Your task to perform on an android device: Set the phone to "Do not disturb". Image 0: 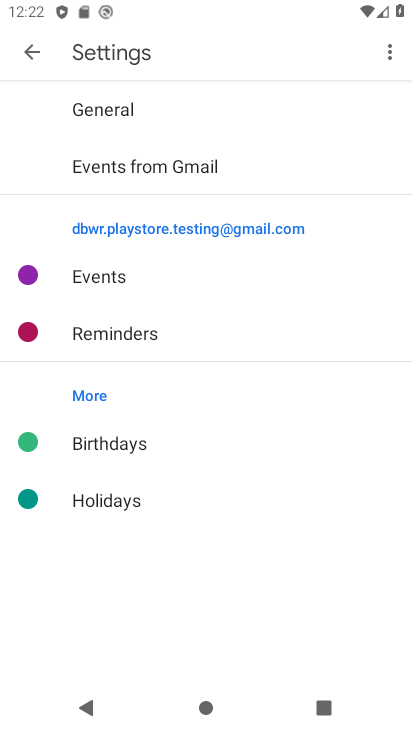
Step 0: press home button
Your task to perform on an android device: Set the phone to "Do not disturb". Image 1: 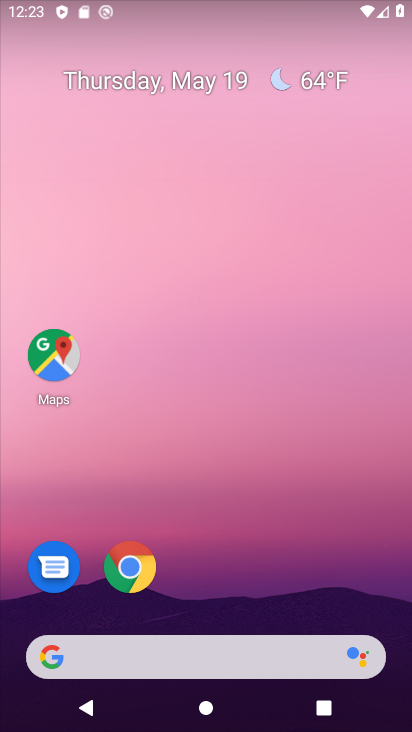
Step 1: drag from (293, 580) to (292, 84)
Your task to perform on an android device: Set the phone to "Do not disturb". Image 2: 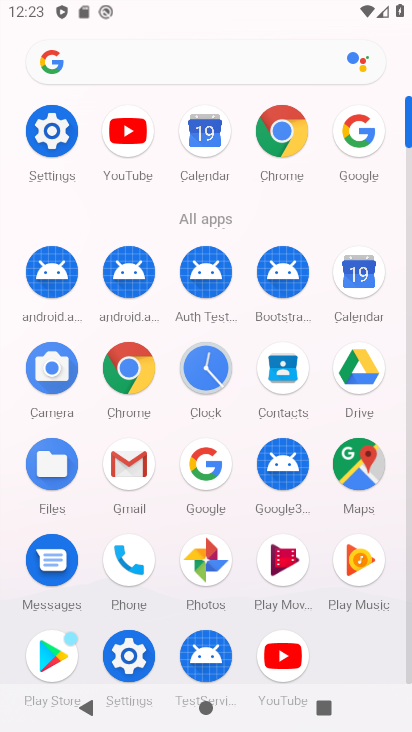
Step 2: click (53, 140)
Your task to perform on an android device: Set the phone to "Do not disturb". Image 3: 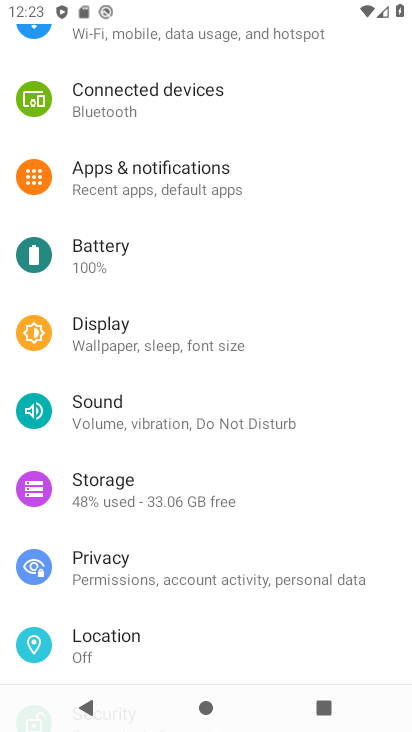
Step 3: click (147, 423)
Your task to perform on an android device: Set the phone to "Do not disturb". Image 4: 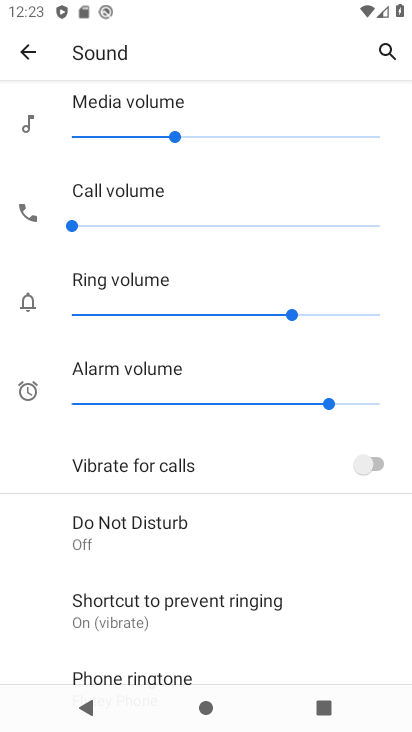
Step 4: drag from (242, 572) to (213, 414)
Your task to perform on an android device: Set the phone to "Do not disturb". Image 5: 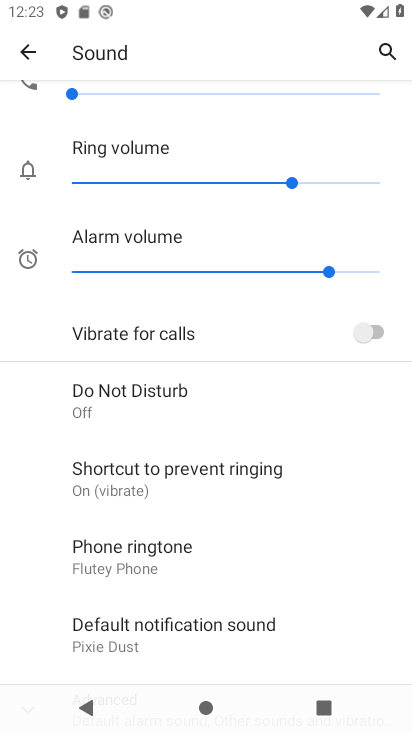
Step 5: click (184, 412)
Your task to perform on an android device: Set the phone to "Do not disturb". Image 6: 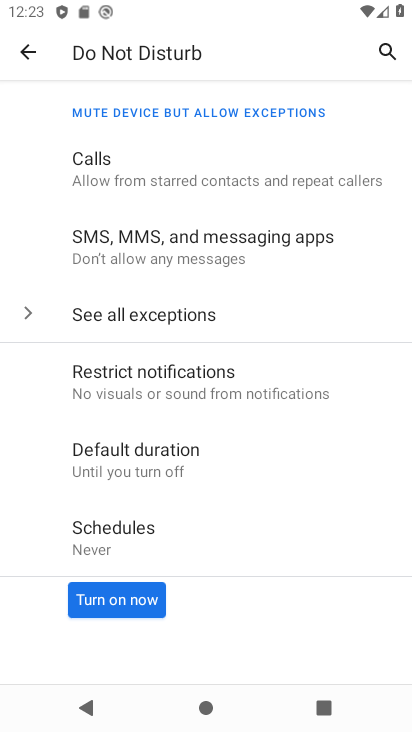
Step 6: click (127, 611)
Your task to perform on an android device: Set the phone to "Do not disturb". Image 7: 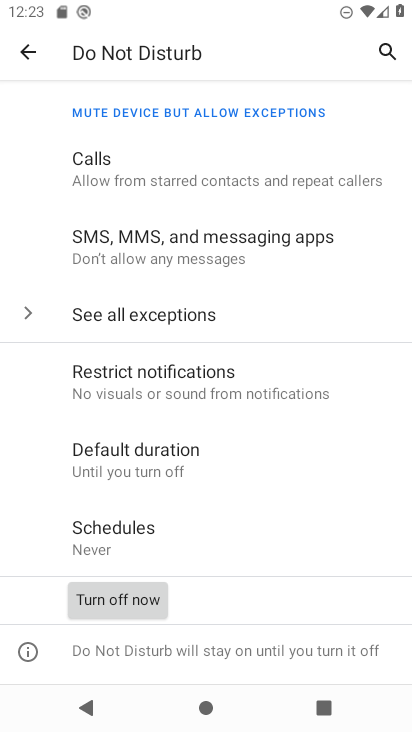
Step 7: task complete